Your task to perform on an android device: turn off priority inbox in the gmail app Image 0: 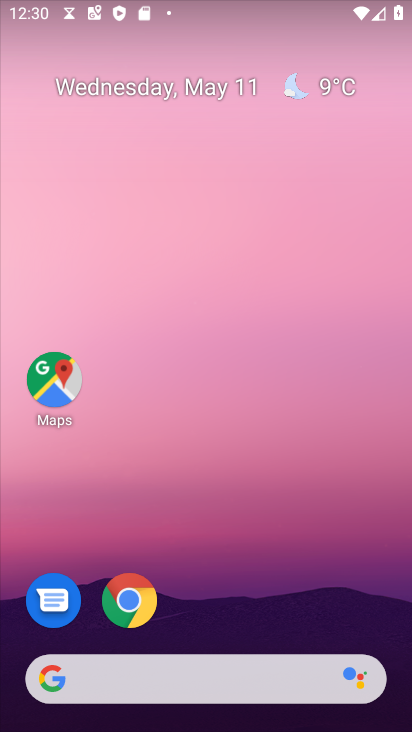
Step 0: drag from (295, 611) to (235, 84)
Your task to perform on an android device: turn off priority inbox in the gmail app Image 1: 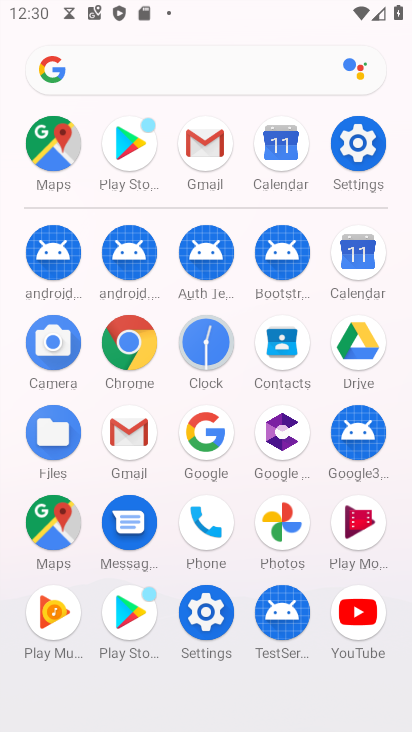
Step 1: click (146, 433)
Your task to perform on an android device: turn off priority inbox in the gmail app Image 2: 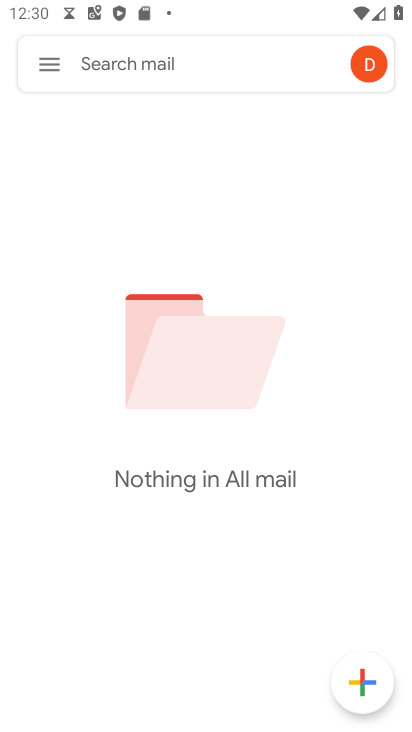
Step 2: click (44, 59)
Your task to perform on an android device: turn off priority inbox in the gmail app Image 3: 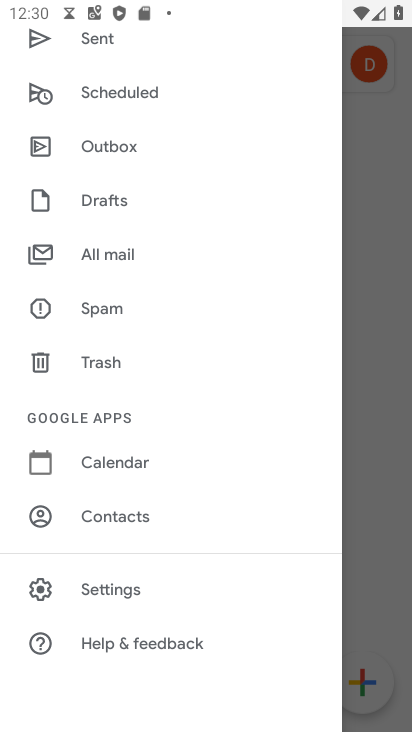
Step 3: click (124, 589)
Your task to perform on an android device: turn off priority inbox in the gmail app Image 4: 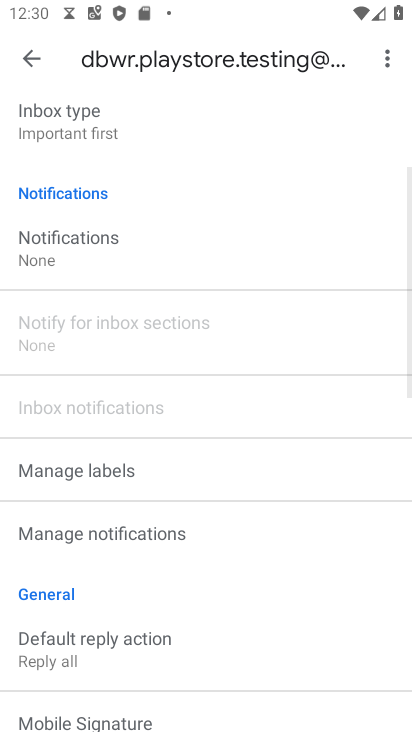
Step 4: drag from (123, 146) to (106, 657)
Your task to perform on an android device: turn off priority inbox in the gmail app Image 5: 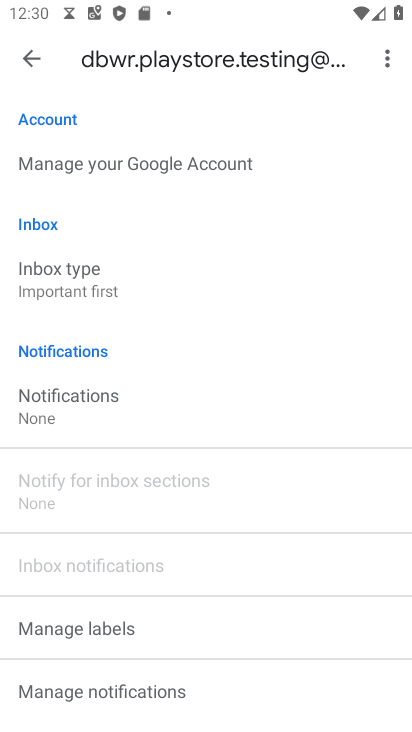
Step 5: click (98, 285)
Your task to perform on an android device: turn off priority inbox in the gmail app Image 6: 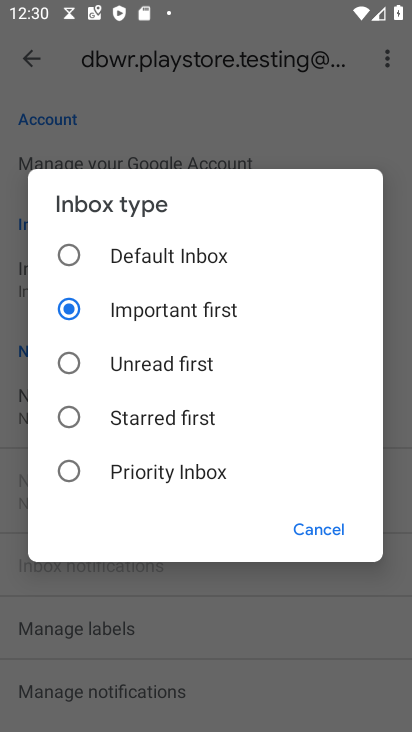
Step 6: click (147, 240)
Your task to perform on an android device: turn off priority inbox in the gmail app Image 7: 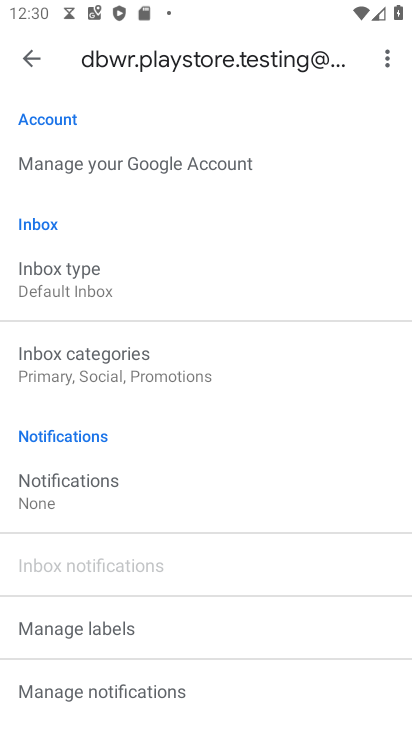
Step 7: task complete